Your task to perform on an android device: turn vacation reply on in the gmail app Image 0: 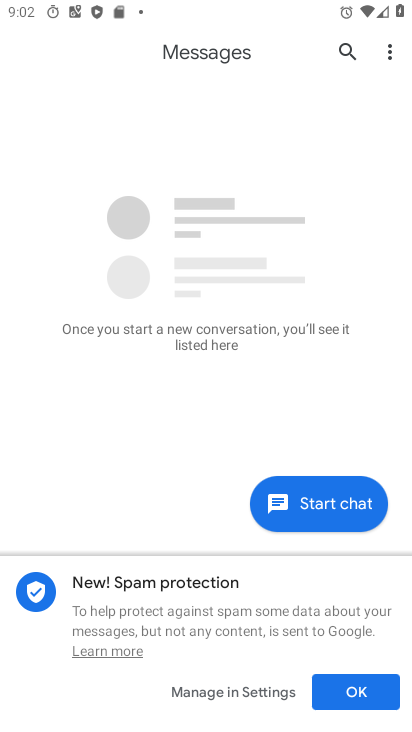
Step 0: press home button
Your task to perform on an android device: turn vacation reply on in the gmail app Image 1: 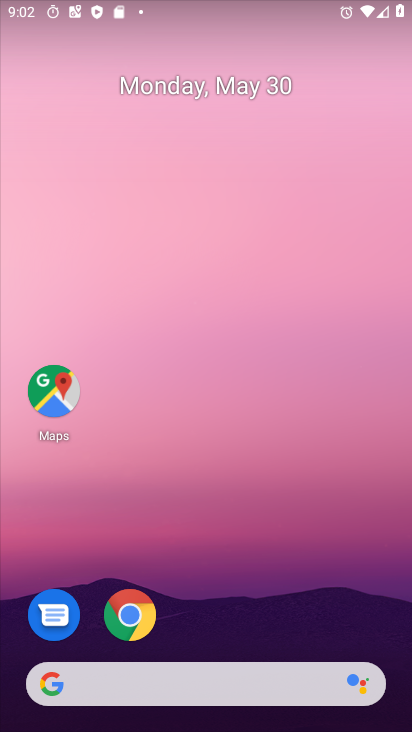
Step 1: drag from (324, 588) to (258, 60)
Your task to perform on an android device: turn vacation reply on in the gmail app Image 2: 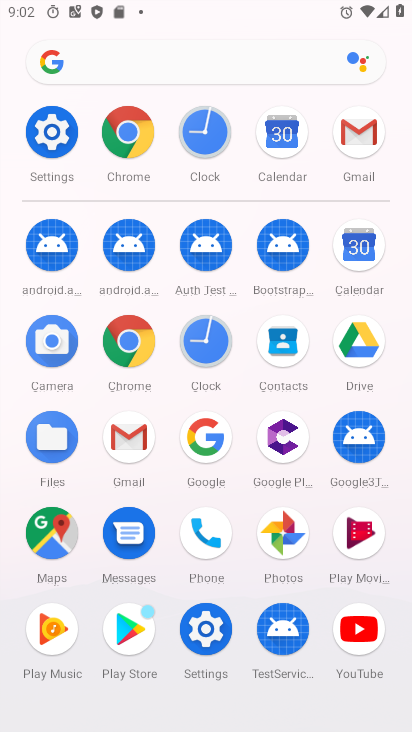
Step 2: click (357, 144)
Your task to perform on an android device: turn vacation reply on in the gmail app Image 3: 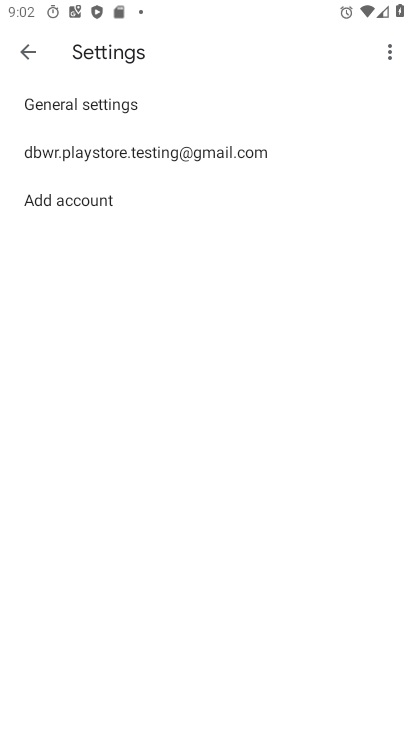
Step 3: click (30, 50)
Your task to perform on an android device: turn vacation reply on in the gmail app Image 4: 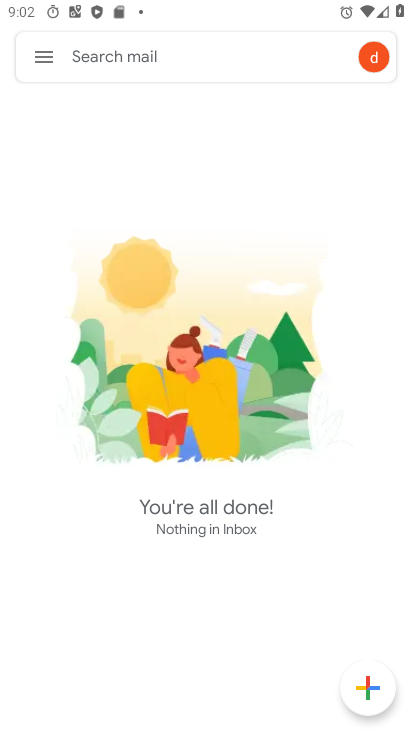
Step 4: click (41, 58)
Your task to perform on an android device: turn vacation reply on in the gmail app Image 5: 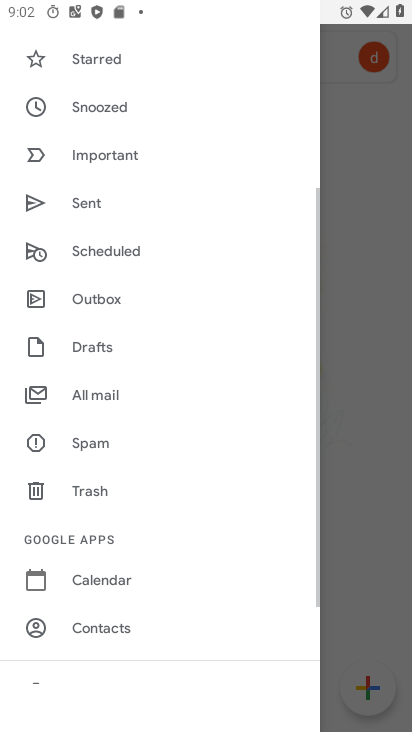
Step 5: drag from (160, 538) to (195, 59)
Your task to perform on an android device: turn vacation reply on in the gmail app Image 6: 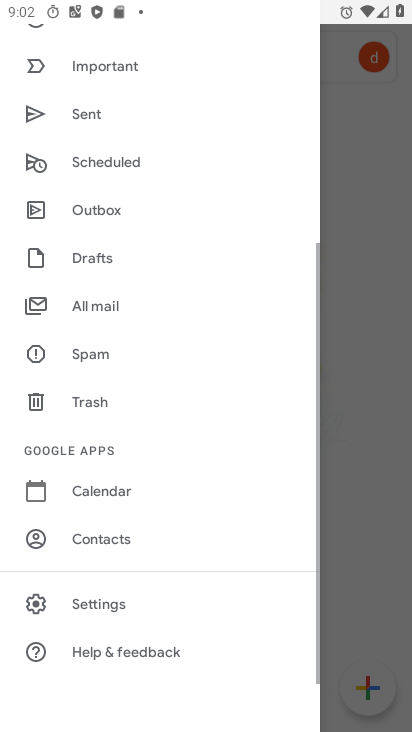
Step 6: click (93, 603)
Your task to perform on an android device: turn vacation reply on in the gmail app Image 7: 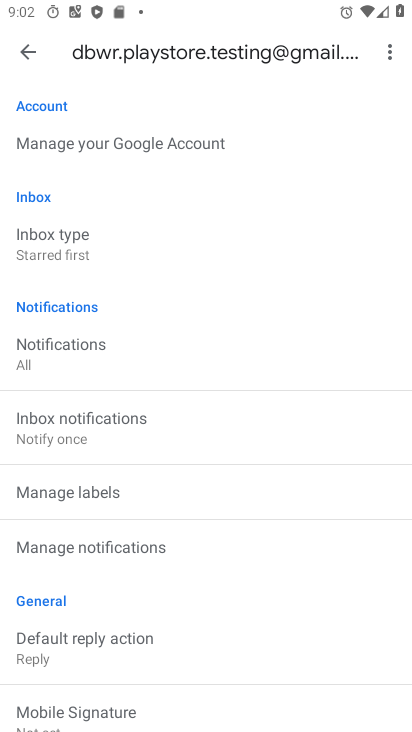
Step 7: drag from (133, 538) to (204, 171)
Your task to perform on an android device: turn vacation reply on in the gmail app Image 8: 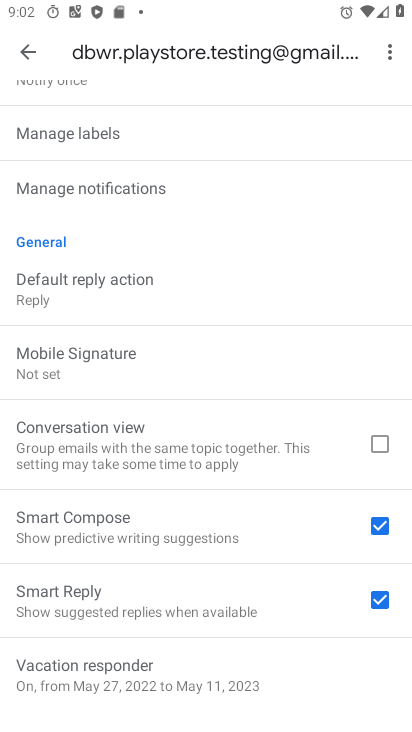
Step 8: drag from (172, 628) to (178, 161)
Your task to perform on an android device: turn vacation reply on in the gmail app Image 9: 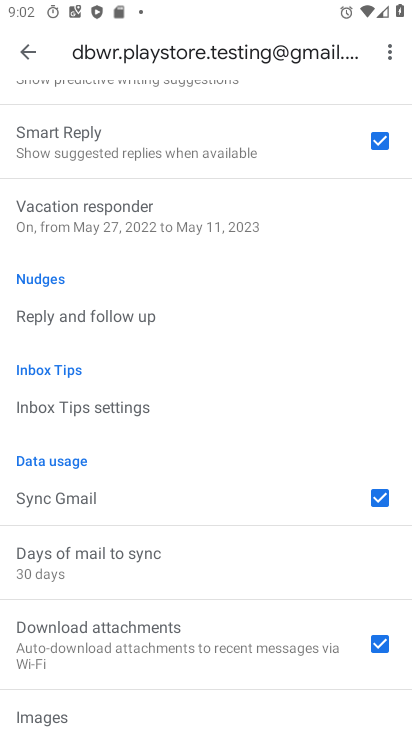
Step 9: click (138, 205)
Your task to perform on an android device: turn vacation reply on in the gmail app Image 10: 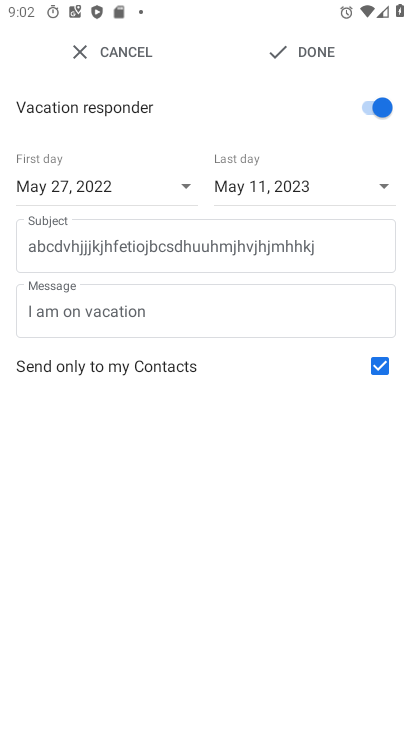
Step 10: task complete